Your task to perform on an android device: Open battery settings Image 0: 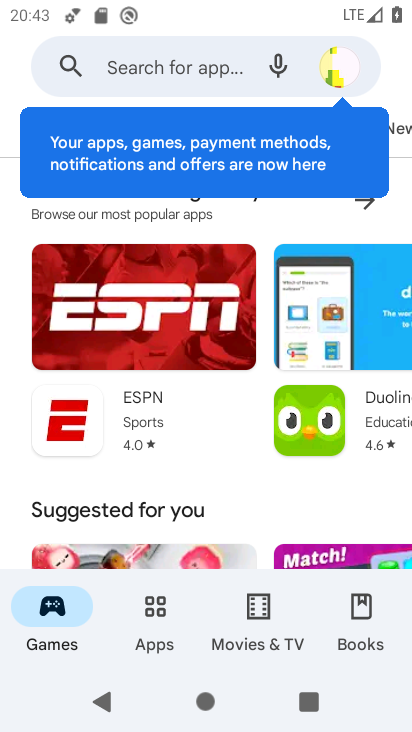
Step 0: press home button
Your task to perform on an android device: Open battery settings Image 1: 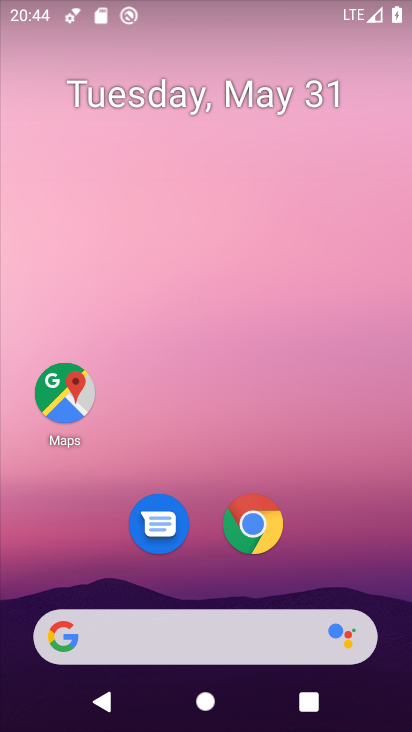
Step 1: drag from (338, 553) to (361, 24)
Your task to perform on an android device: Open battery settings Image 2: 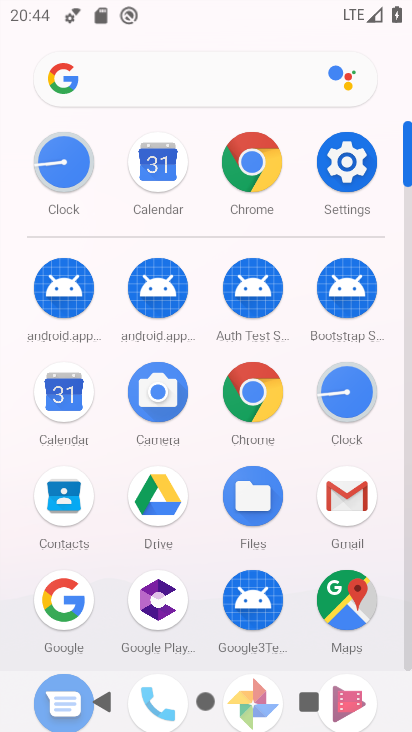
Step 2: click (345, 153)
Your task to perform on an android device: Open battery settings Image 3: 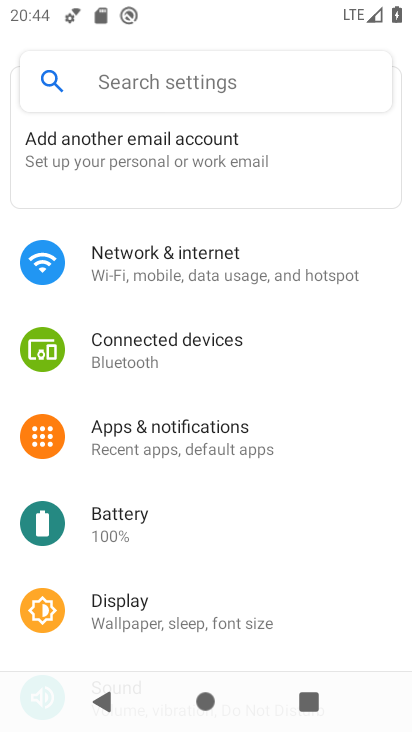
Step 3: click (144, 520)
Your task to perform on an android device: Open battery settings Image 4: 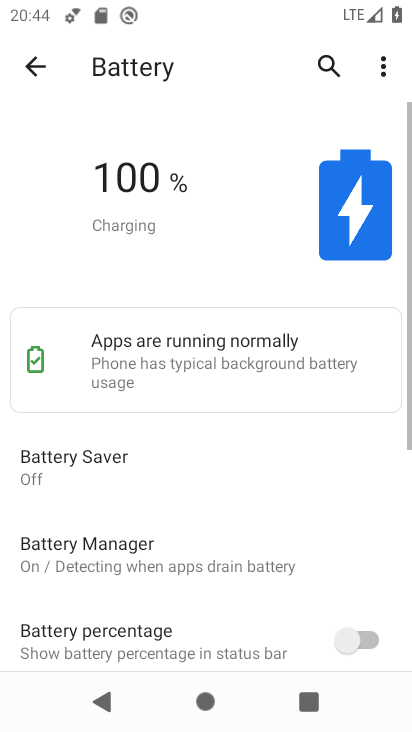
Step 4: task complete